Your task to perform on an android device: move a message to another label in the gmail app Image 0: 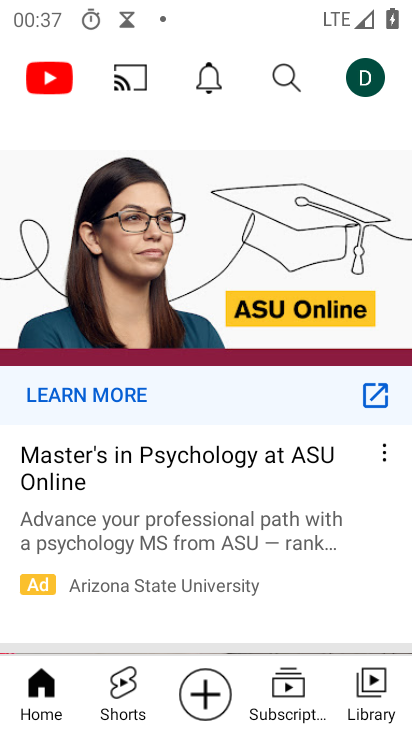
Step 0: press home button
Your task to perform on an android device: move a message to another label in the gmail app Image 1: 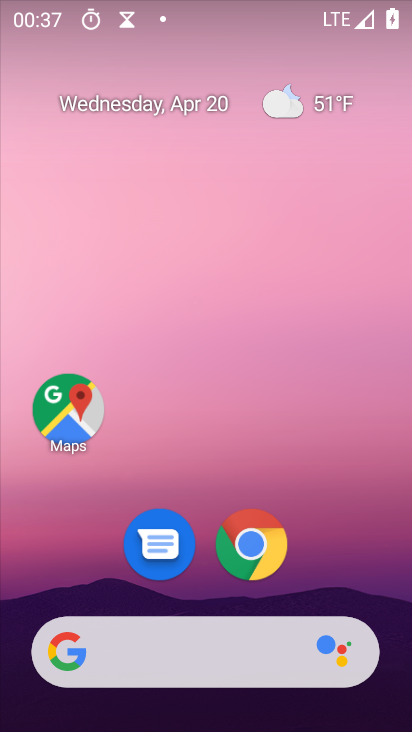
Step 1: drag from (320, 577) to (347, 81)
Your task to perform on an android device: move a message to another label in the gmail app Image 2: 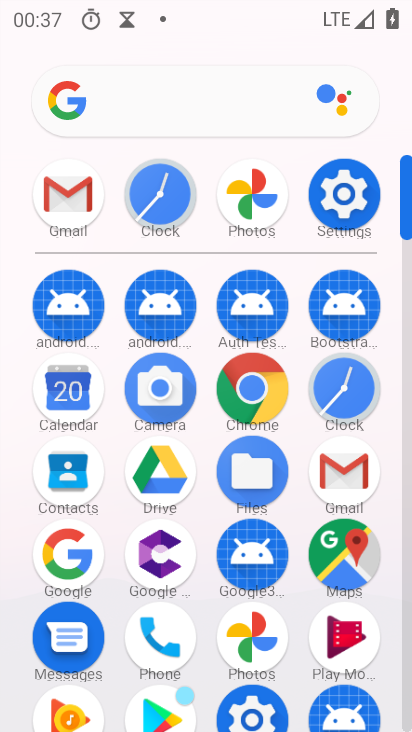
Step 2: click (349, 467)
Your task to perform on an android device: move a message to another label in the gmail app Image 3: 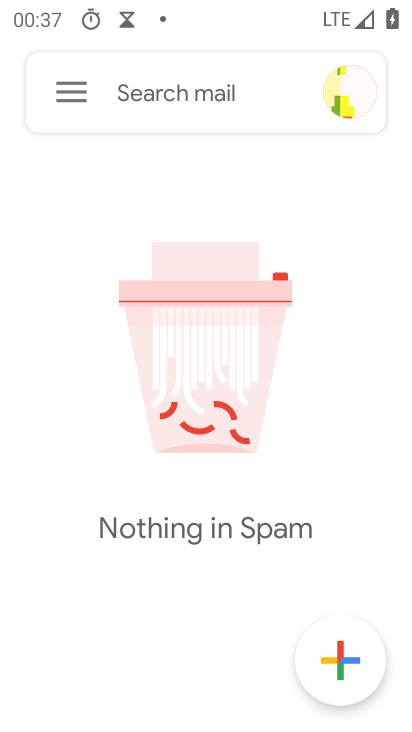
Step 3: click (70, 94)
Your task to perform on an android device: move a message to another label in the gmail app Image 4: 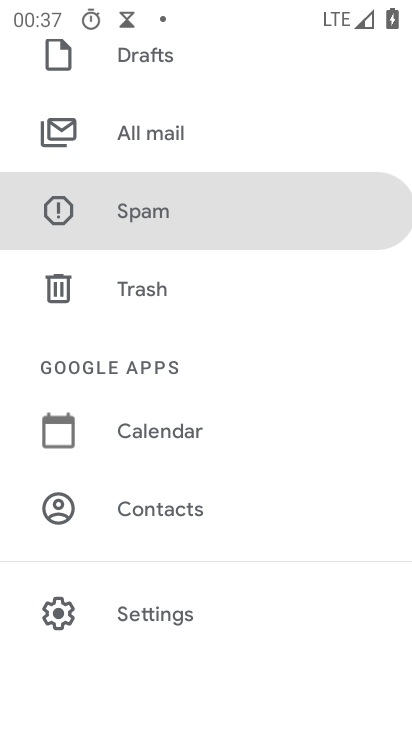
Step 4: click (190, 124)
Your task to perform on an android device: move a message to another label in the gmail app Image 5: 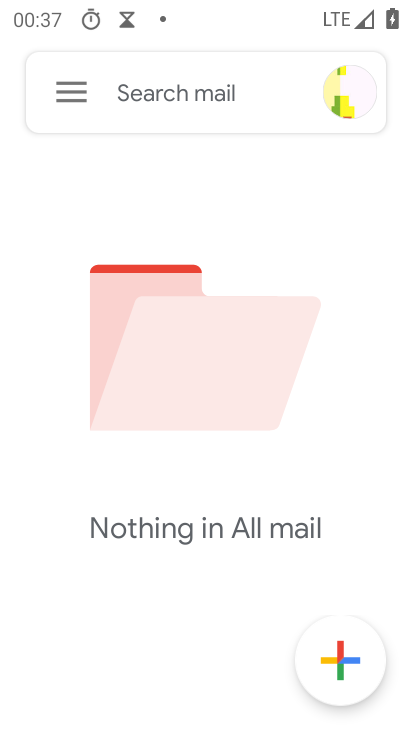
Step 5: task complete